Your task to perform on an android device: turn off sleep mode Image 0: 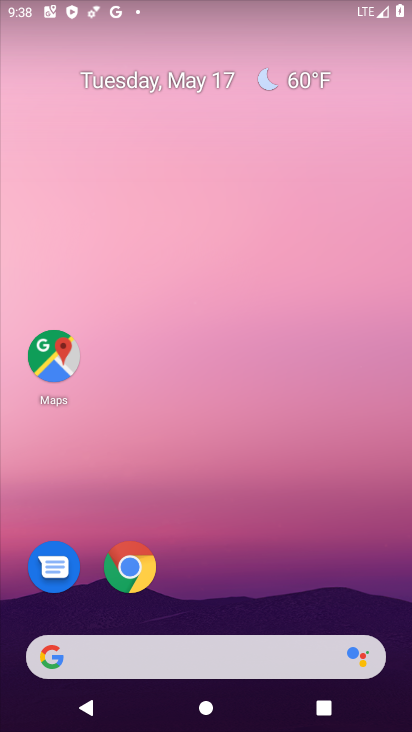
Step 0: drag from (397, 640) to (305, 57)
Your task to perform on an android device: turn off sleep mode Image 1: 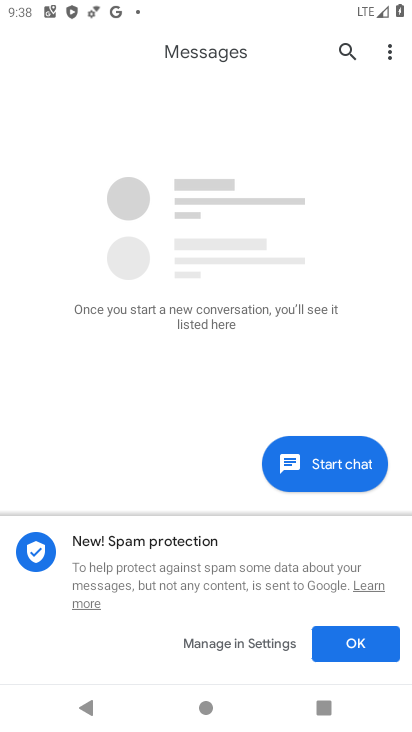
Step 1: press home button
Your task to perform on an android device: turn off sleep mode Image 2: 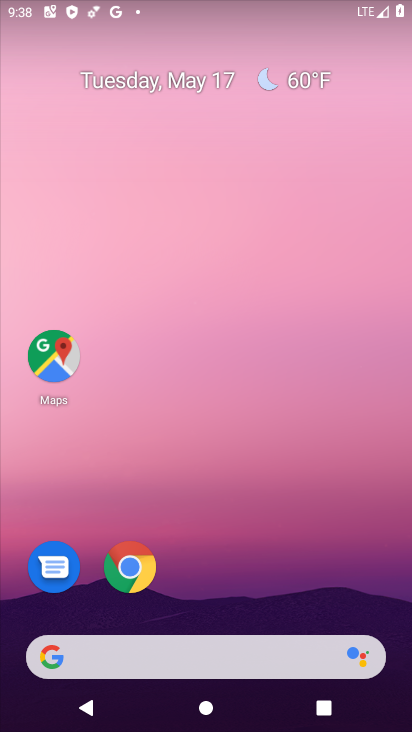
Step 2: drag from (387, 636) to (269, 81)
Your task to perform on an android device: turn off sleep mode Image 3: 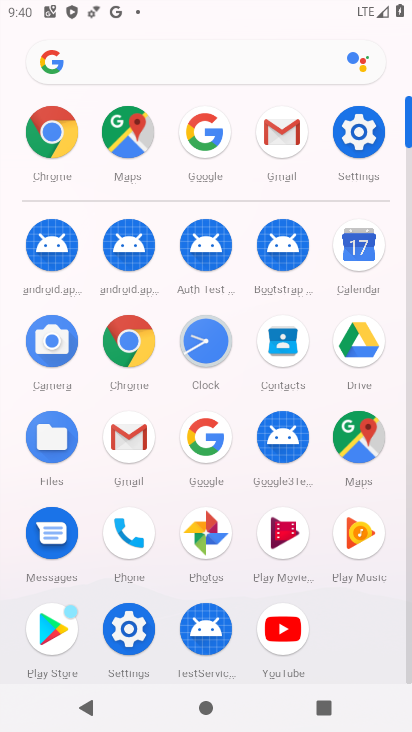
Step 3: click (367, 110)
Your task to perform on an android device: turn off sleep mode Image 4: 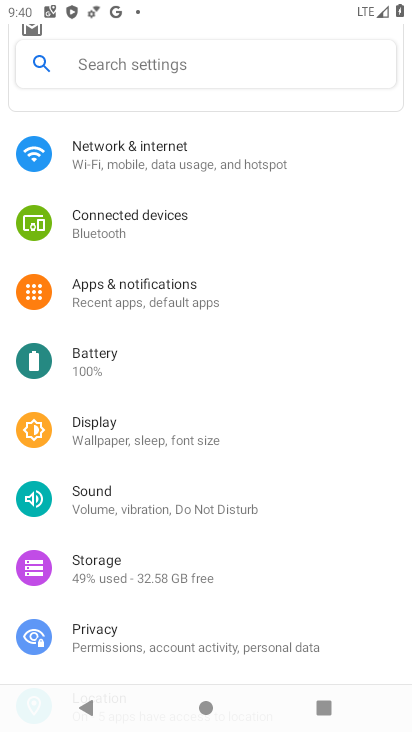
Step 4: task complete